Your task to perform on an android device: set the stopwatch Image 0: 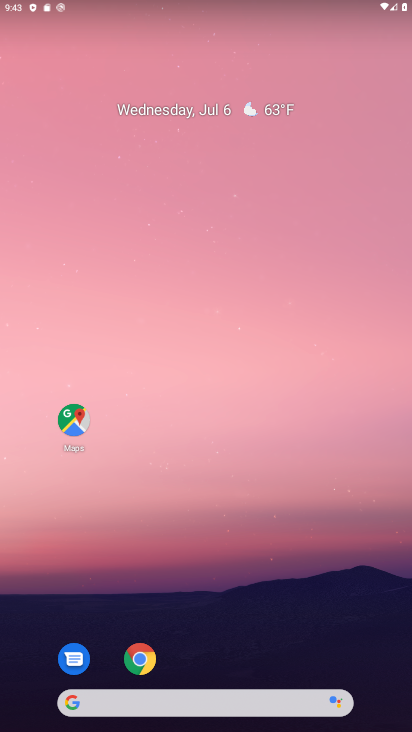
Step 0: drag from (250, 591) to (334, 189)
Your task to perform on an android device: set the stopwatch Image 1: 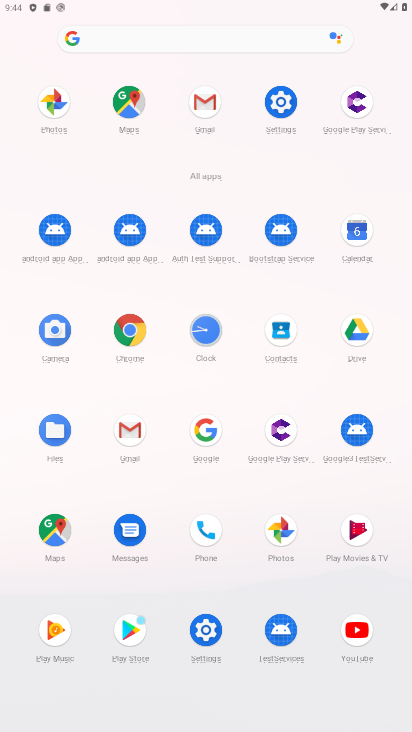
Step 1: click (209, 113)
Your task to perform on an android device: set the stopwatch Image 2: 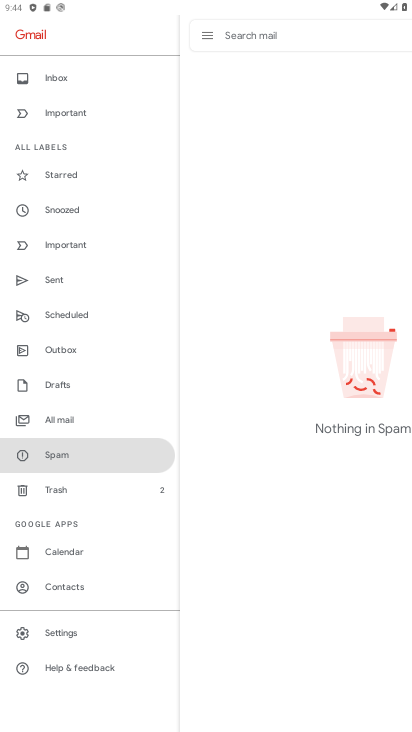
Step 2: drag from (90, 551) to (93, 287)
Your task to perform on an android device: set the stopwatch Image 3: 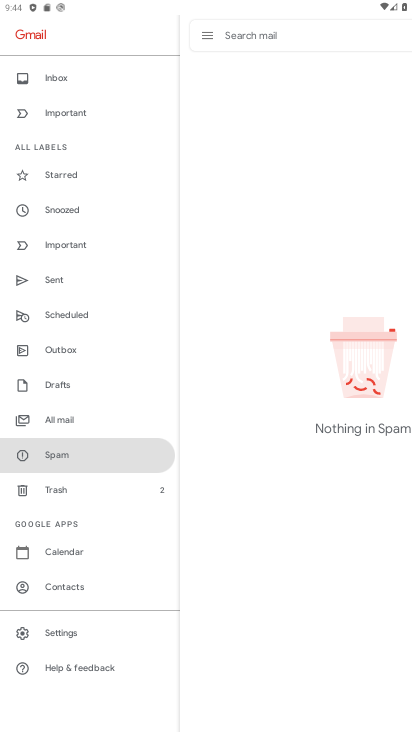
Step 3: drag from (138, 515) to (154, 328)
Your task to perform on an android device: set the stopwatch Image 4: 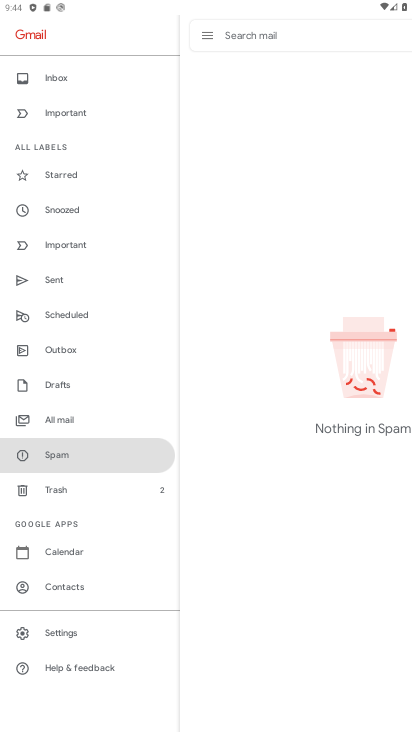
Step 4: drag from (282, 593) to (214, 224)
Your task to perform on an android device: set the stopwatch Image 5: 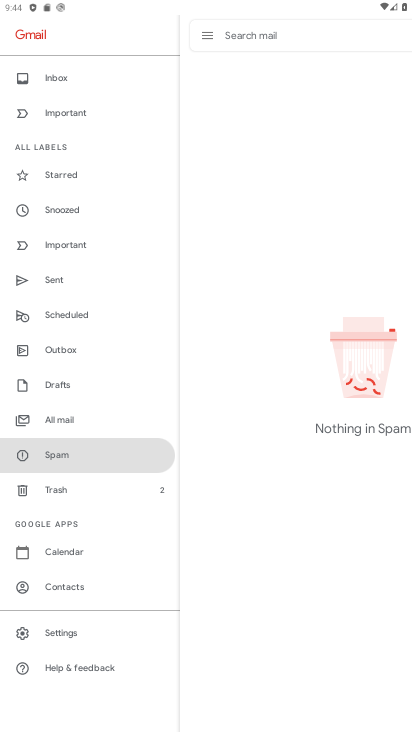
Step 5: drag from (108, 538) to (136, 361)
Your task to perform on an android device: set the stopwatch Image 6: 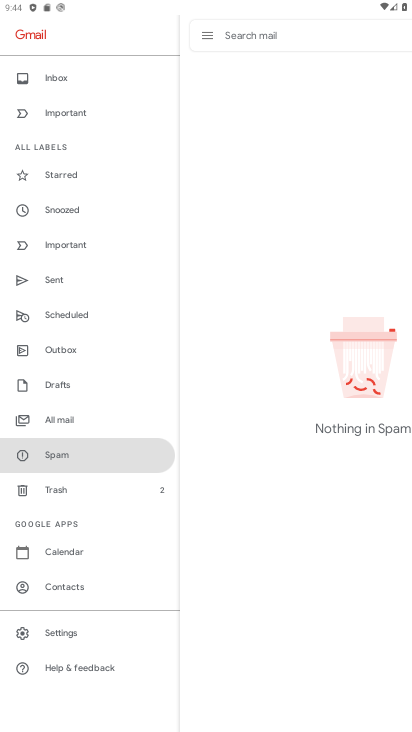
Step 6: drag from (118, 544) to (117, 314)
Your task to perform on an android device: set the stopwatch Image 7: 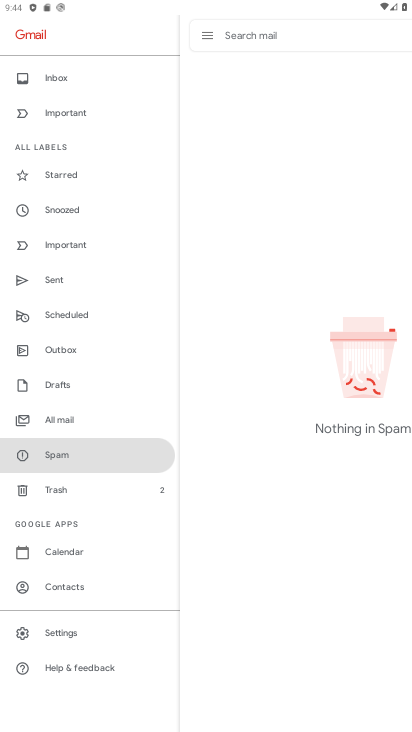
Step 7: click (36, 451)
Your task to perform on an android device: set the stopwatch Image 8: 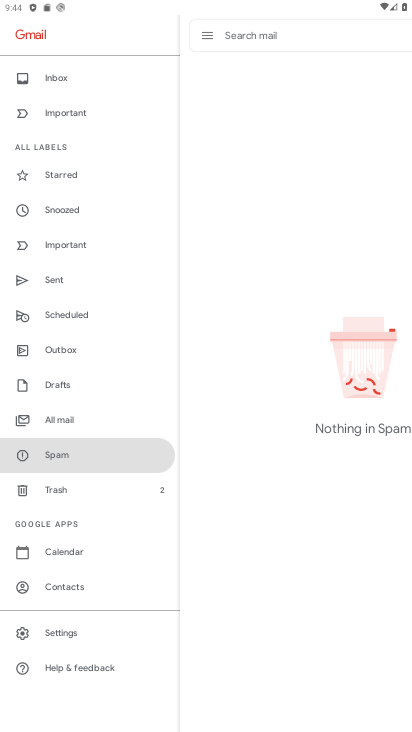
Step 8: press home button
Your task to perform on an android device: set the stopwatch Image 9: 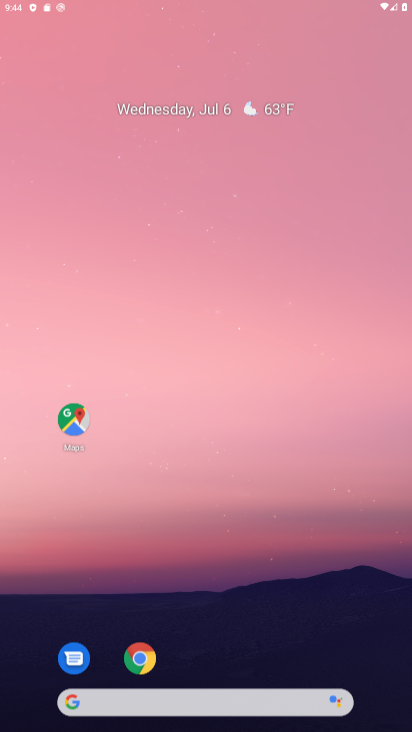
Step 9: drag from (136, 644) to (184, 133)
Your task to perform on an android device: set the stopwatch Image 10: 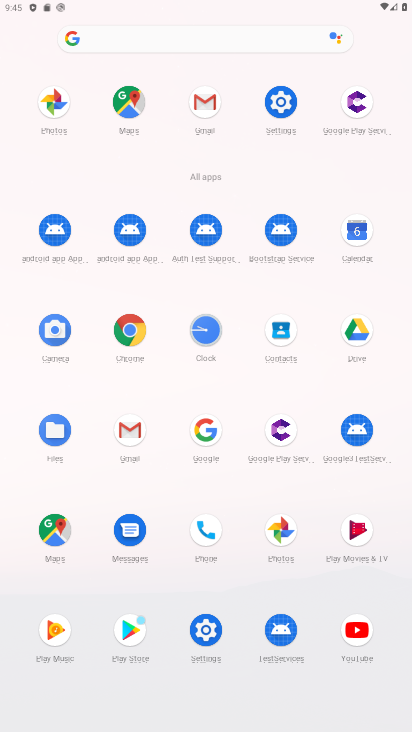
Step 10: click (204, 330)
Your task to perform on an android device: set the stopwatch Image 11: 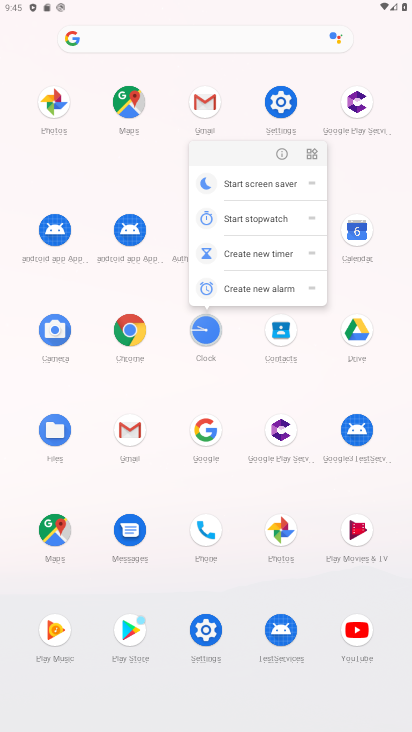
Step 11: click (279, 156)
Your task to perform on an android device: set the stopwatch Image 12: 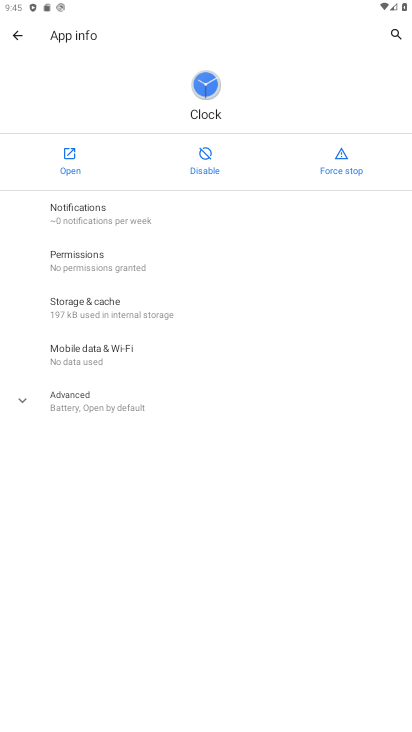
Step 12: click (50, 157)
Your task to perform on an android device: set the stopwatch Image 13: 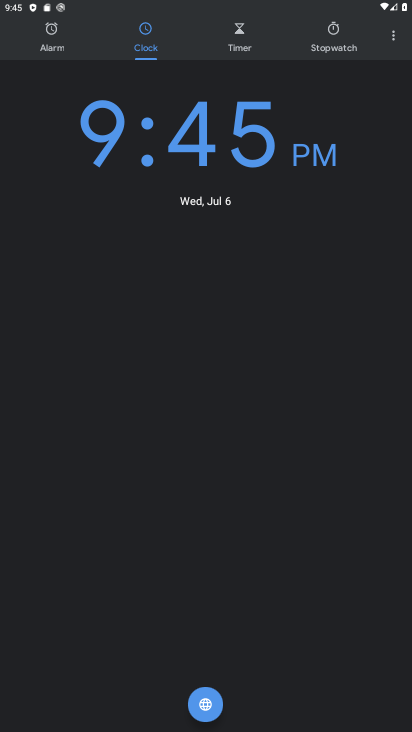
Step 13: click (355, 40)
Your task to perform on an android device: set the stopwatch Image 14: 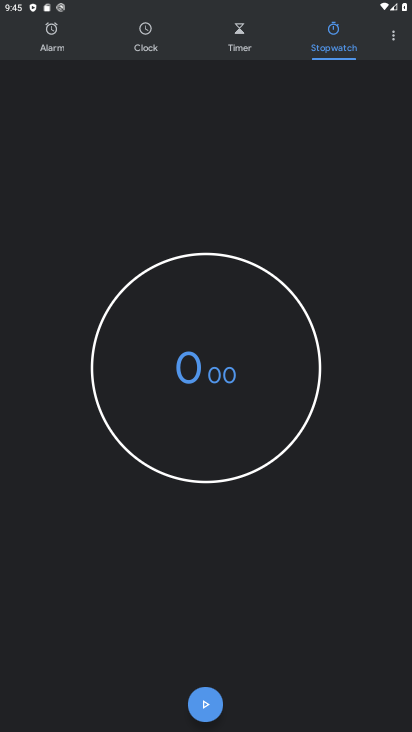
Step 14: click (203, 717)
Your task to perform on an android device: set the stopwatch Image 15: 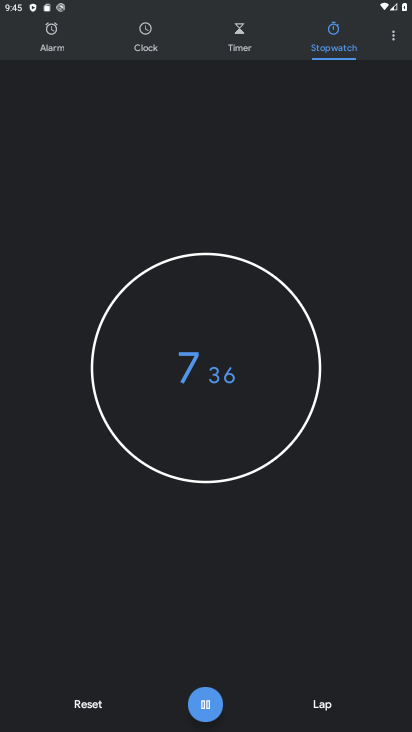
Step 15: task complete